Your task to perform on an android device: Go to settings Image 0: 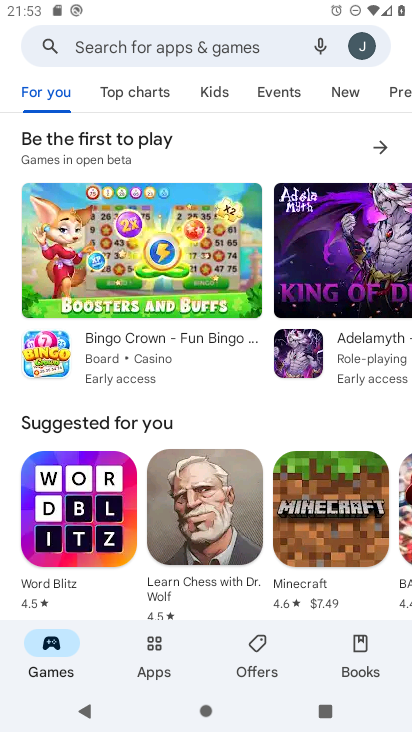
Step 0: press home button
Your task to perform on an android device: Go to settings Image 1: 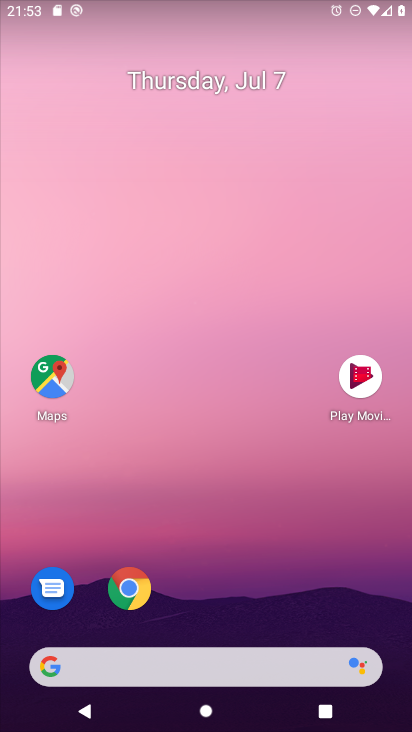
Step 1: drag from (241, 624) to (236, 325)
Your task to perform on an android device: Go to settings Image 2: 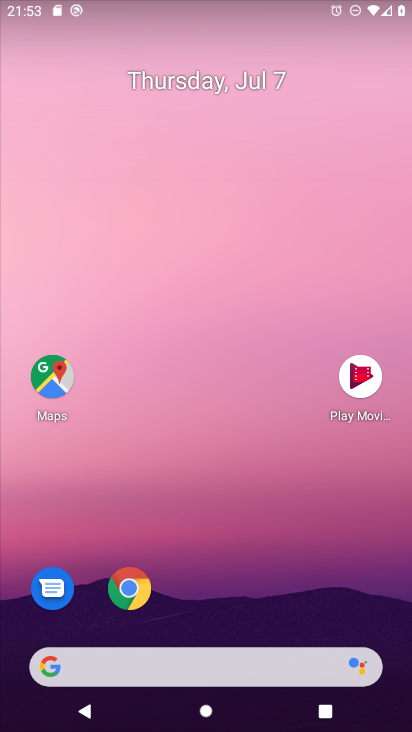
Step 2: drag from (253, 583) to (242, 217)
Your task to perform on an android device: Go to settings Image 3: 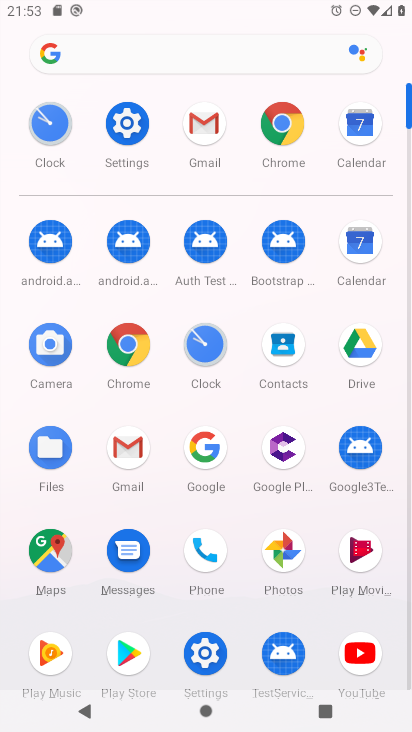
Step 3: click (138, 111)
Your task to perform on an android device: Go to settings Image 4: 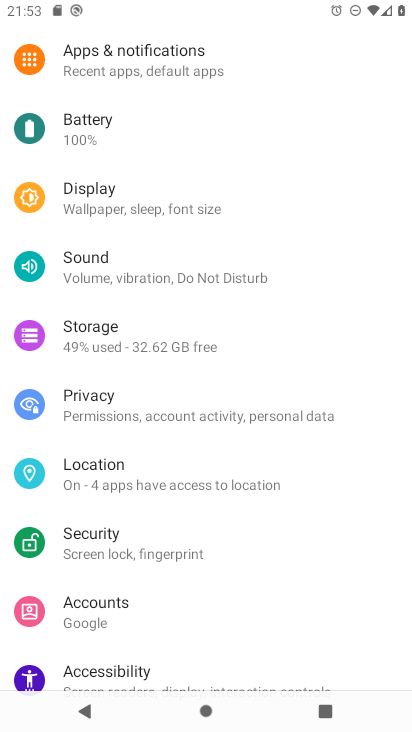
Step 4: task complete